Your task to perform on an android device: move an email to a new category in the gmail app Image 0: 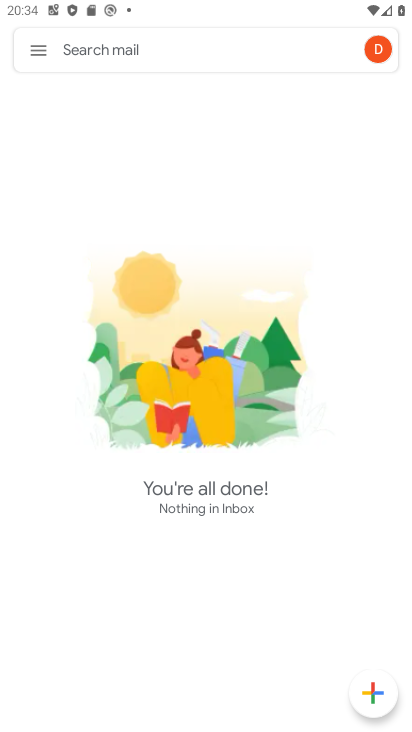
Step 0: press home button
Your task to perform on an android device: move an email to a new category in the gmail app Image 1: 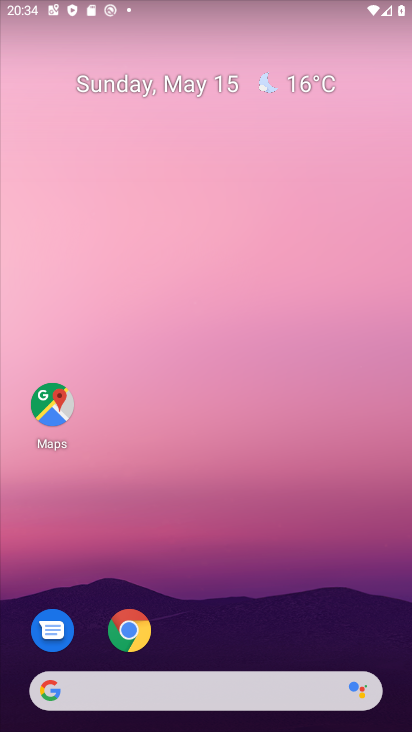
Step 1: drag from (229, 604) to (258, 1)
Your task to perform on an android device: move an email to a new category in the gmail app Image 2: 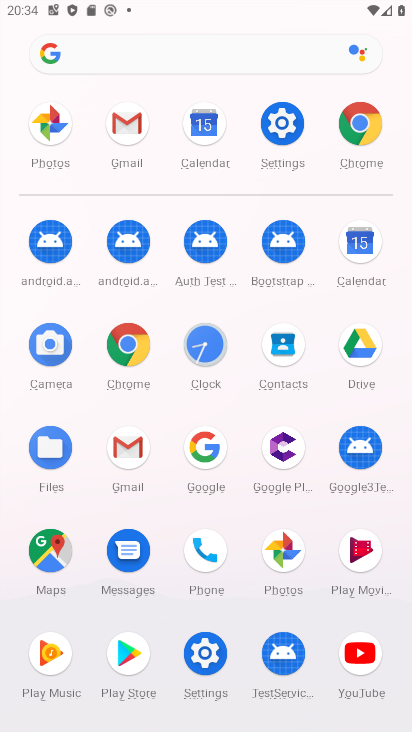
Step 2: click (118, 462)
Your task to perform on an android device: move an email to a new category in the gmail app Image 3: 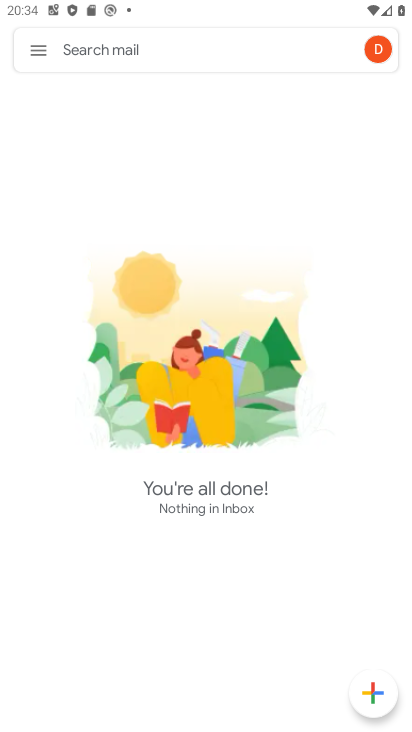
Step 3: click (37, 53)
Your task to perform on an android device: move an email to a new category in the gmail app Image 4: 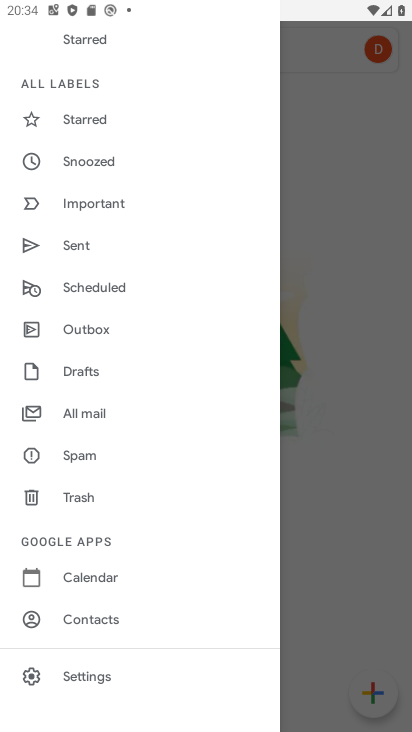
Step 4: click (82, 415)
Your task to perform on an android device: move an email to a new category in the gmail app Image 5: 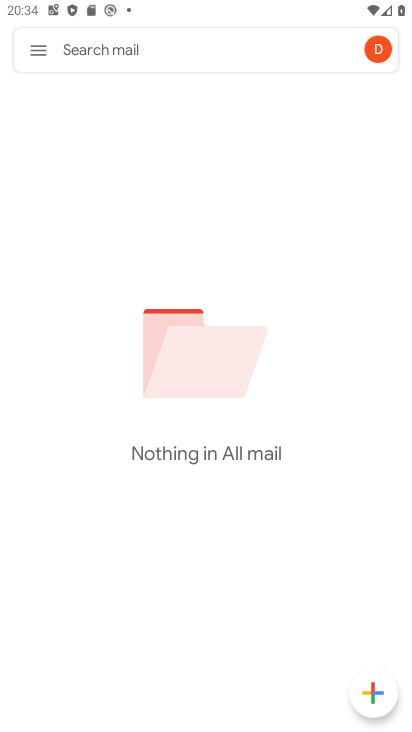
Step 5: task complete